Your task to perform on an android device: turn off airplane mode Image 0: 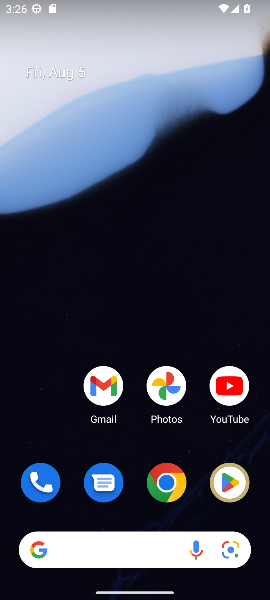
Step 0: press home button
Your task to perform on an android device: turn off airplane mode Image 1: 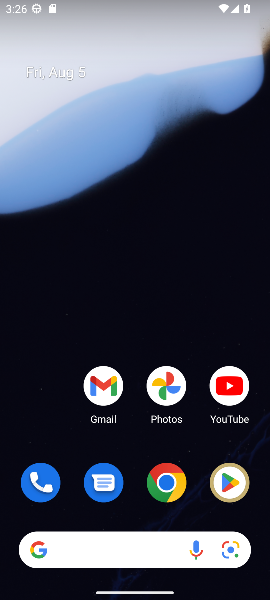
Step 1: task complete